Your task to perform on an android device: Show me recent news Image 0: 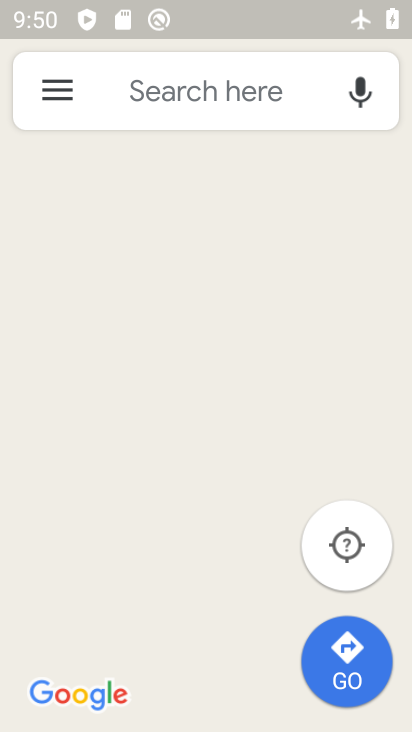
Step 0: press home button
Your task to perform on an android device: Show me recent news Image 1: 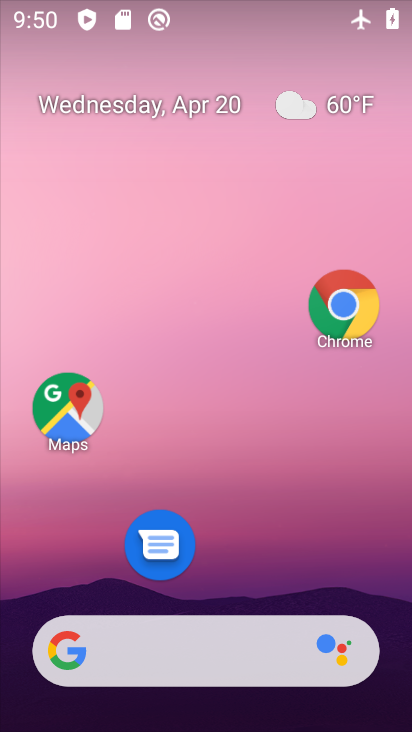
Step 1: drag from (247, 529) to (320, 42)
Your task to perform on an android device: Show me recent news Image 2: 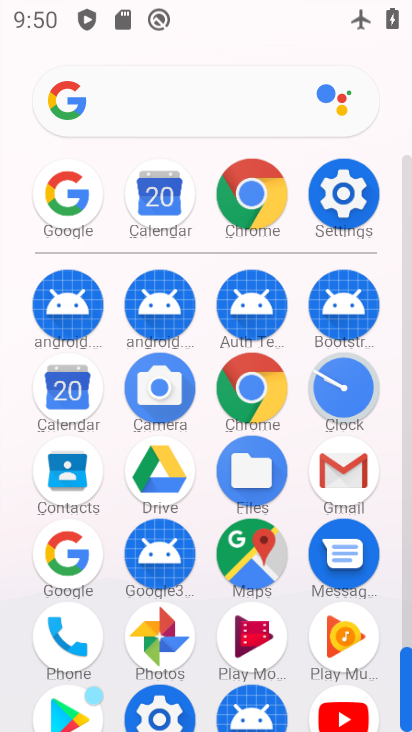
Step 2: drag from (242, 543) to (255, 259)
Your task to perform on an android device: Show me recent news Image 3: 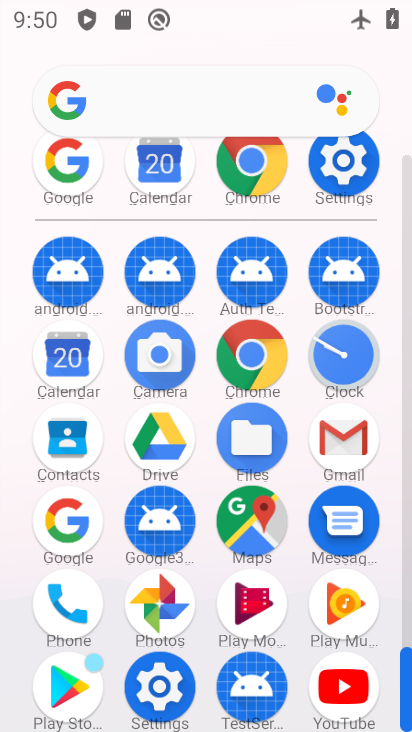
Step 3: click (65, 529)
Your task to perform on an android device: Show me recent news Image 4: 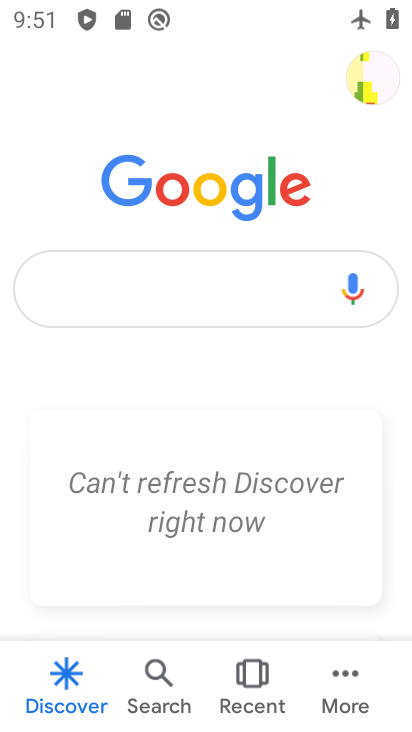
Step 4: click (204, 307)
Your task to perform on an android device: Show me recent news Image 5: 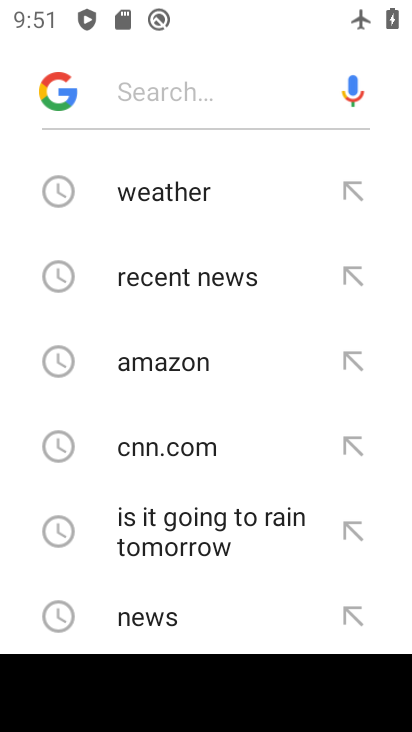
Step 5: click (211, 276)
Your task to perform on an android device: Show me recent news Image 6: 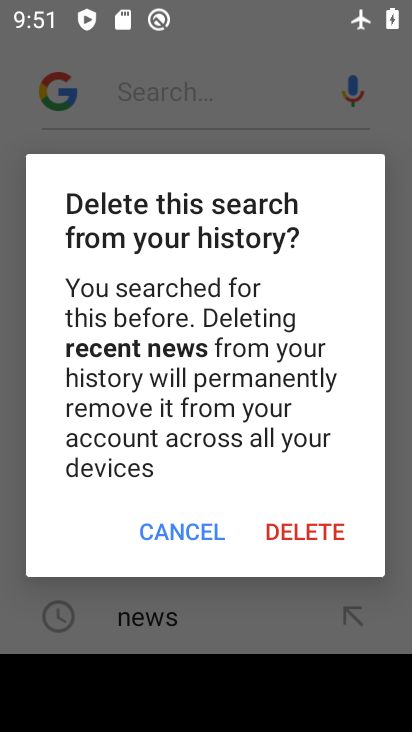
Step 6: click (208, 537)
Your task to perform on an android device: Show me recent news Image 7: 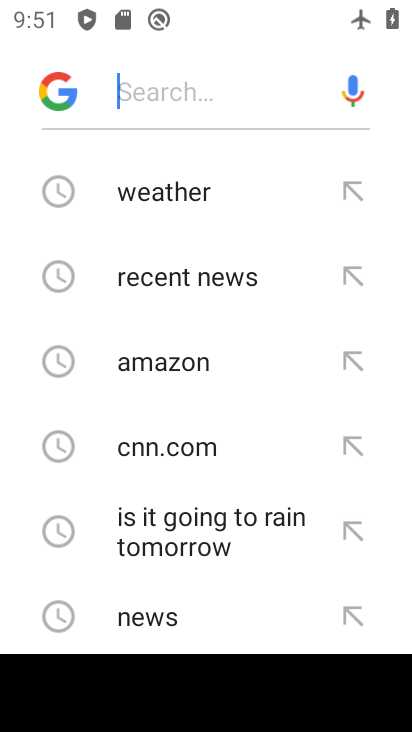
Step 7: click (361, 272)
Your task to perform on an android device: Show me recent news Image 8: 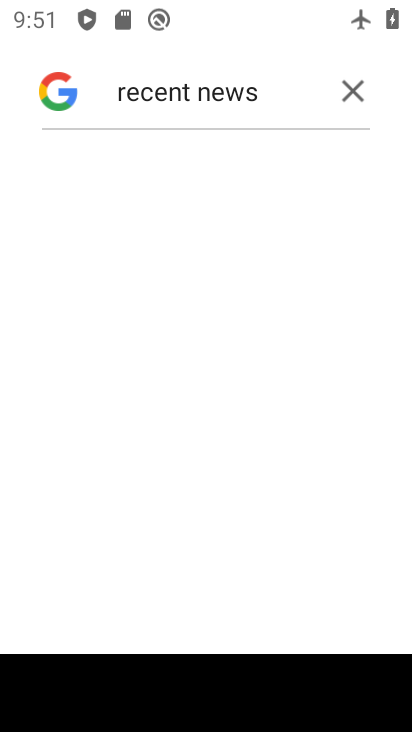
Step 8: task complete